Your task to perform on an android device: toggle show notifications on the lock screen Image 0: 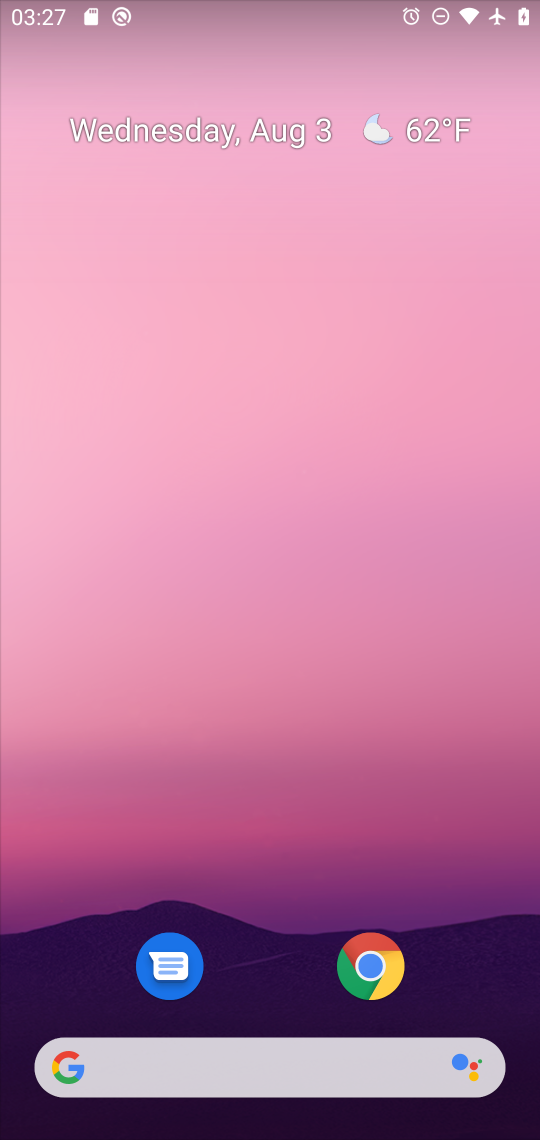
Step 0: drag from (269, 978) to (325, 340)
Your task to perform on an android device: toggle show notifications on the lock screen Image 1: 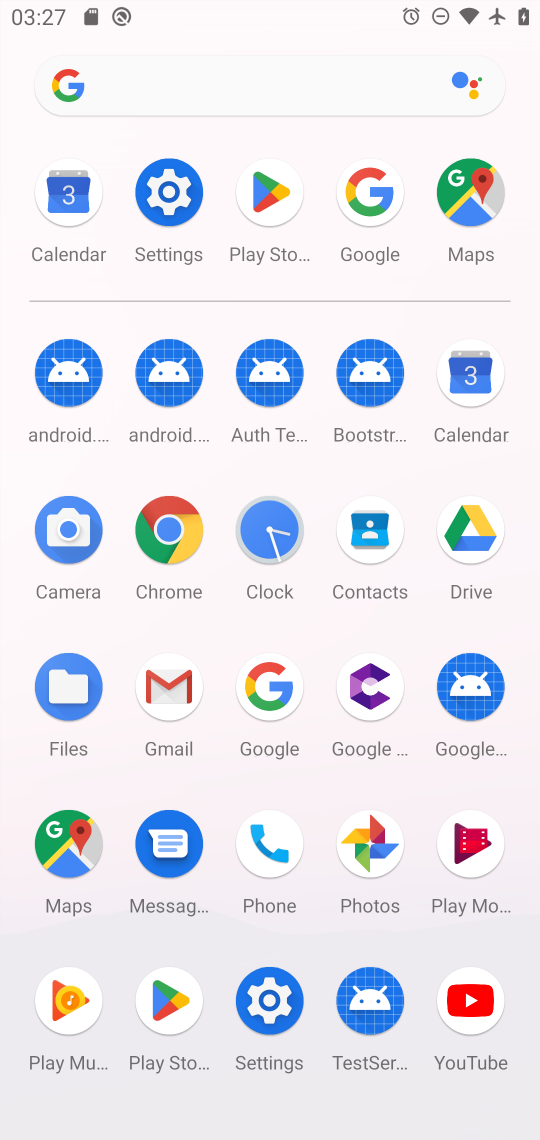
Step 1: click (185, 199)
Your task to perform on an android device: toggle show notifications on the lock screen Image 2: 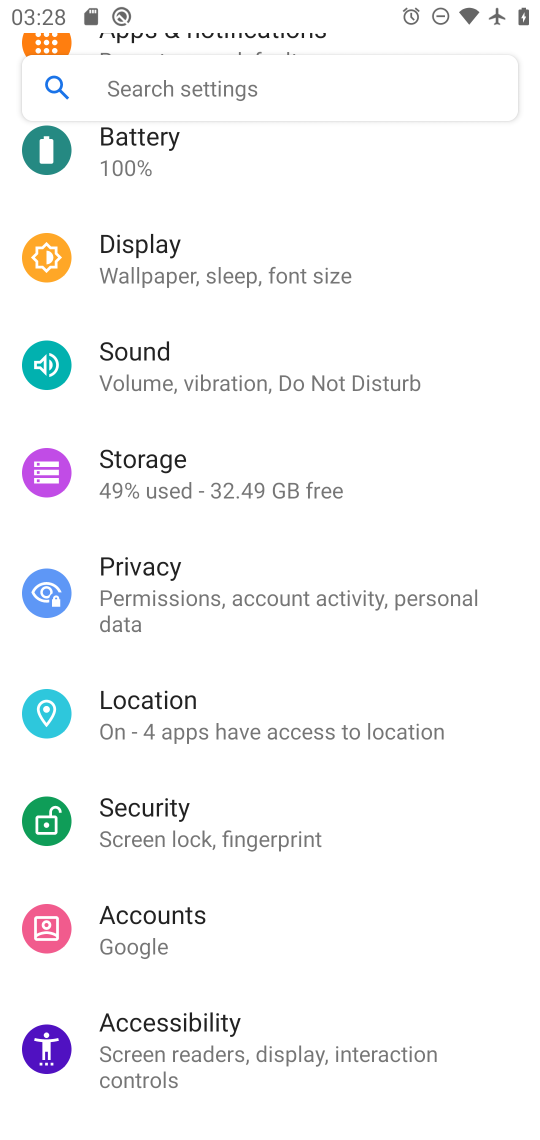
Step 2: drag from (249, 879) to (279, 391)
Your task to perform on an android device: toggle show notifications on the lock screen Image 3: 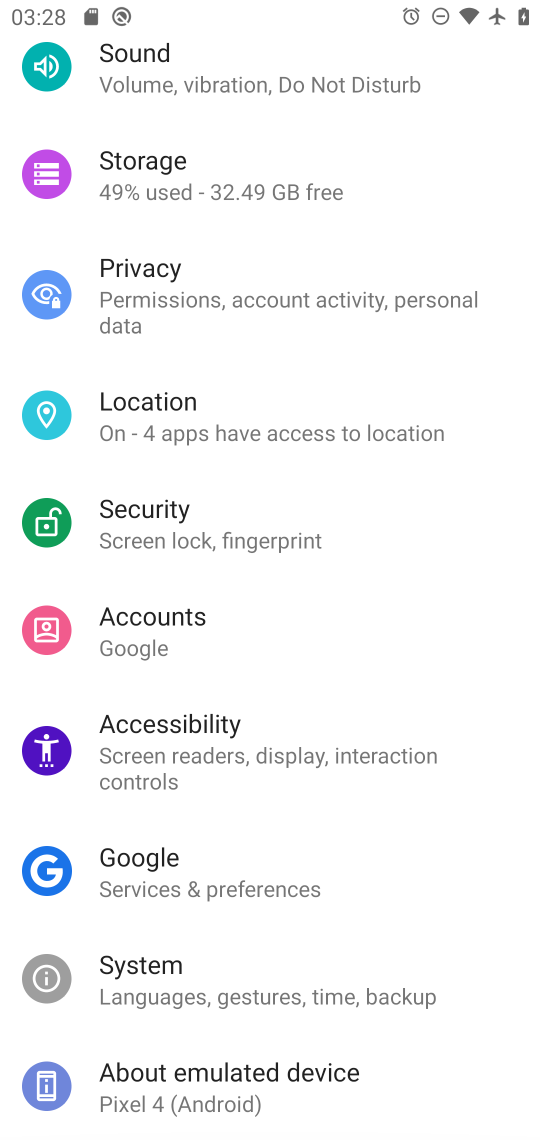
Step 3: drag from (289, 386) to (289, 779)
Your task to perform on an android device: toggle show notifications on the lock screen Image 4: 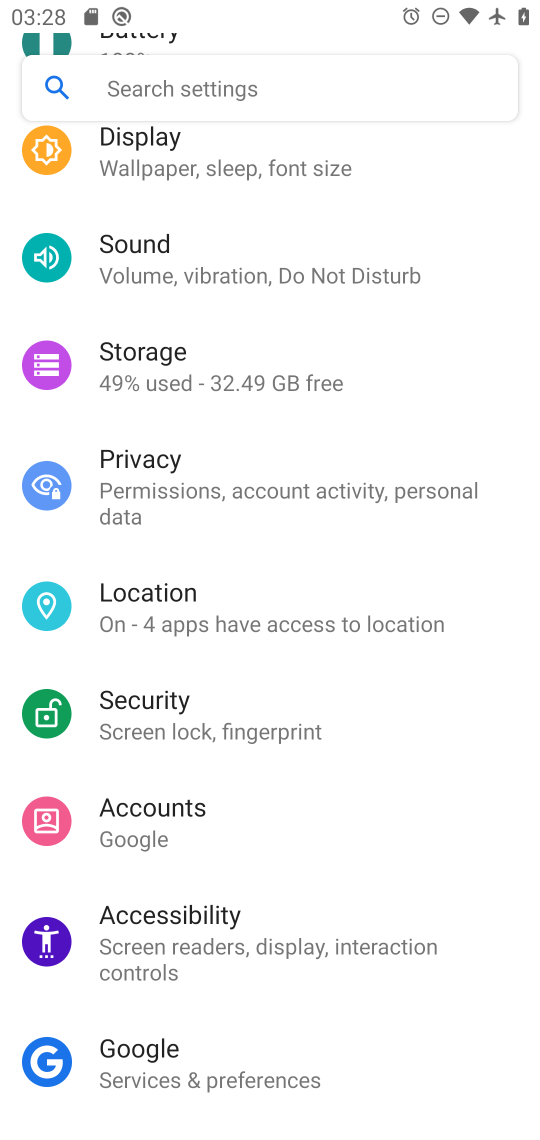
Step 4: drag from (248, 274) to (300, 616)
Your task to perform on an android device: toggle show notifications on the lock screen Image 5: 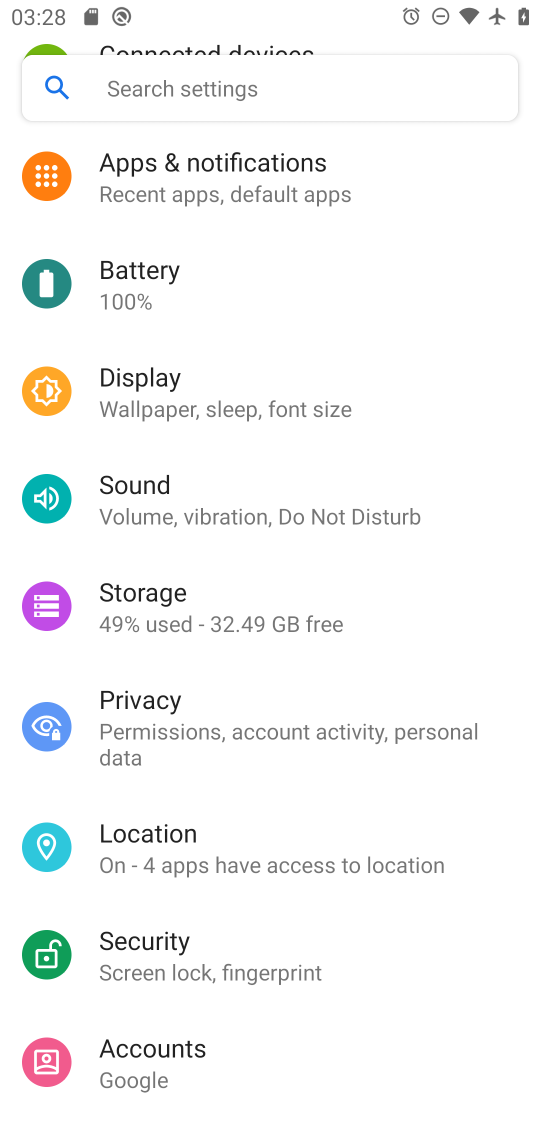
Step 5: click (214, 188)
Your task to perform on an android device: toggle show notifications on the lock screen Image 6: 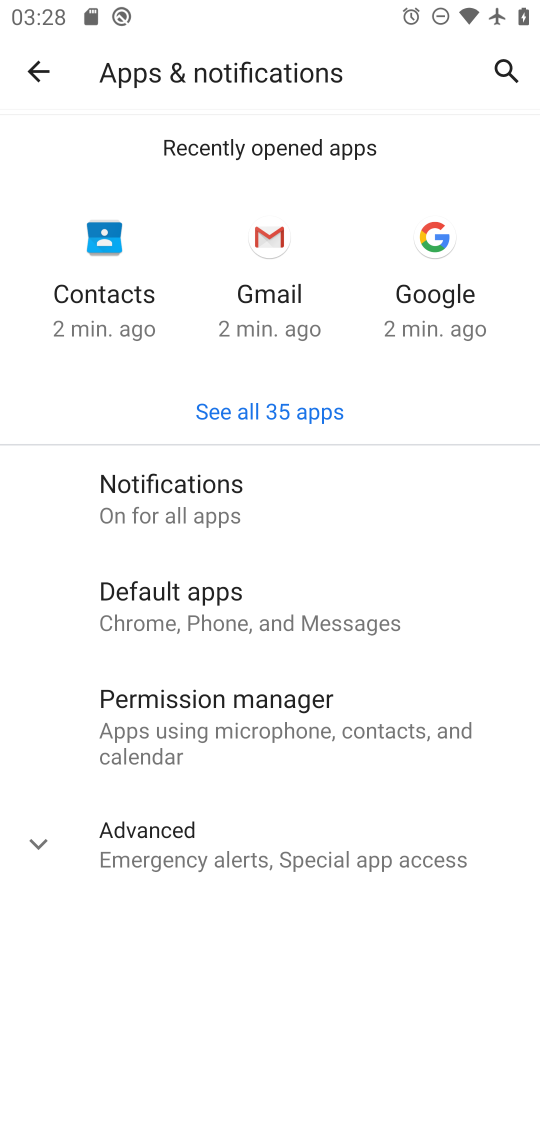
Step 6: click (227, 517)
Your task to perform on an android device: toggle show notifications on the lock screen Image 7: 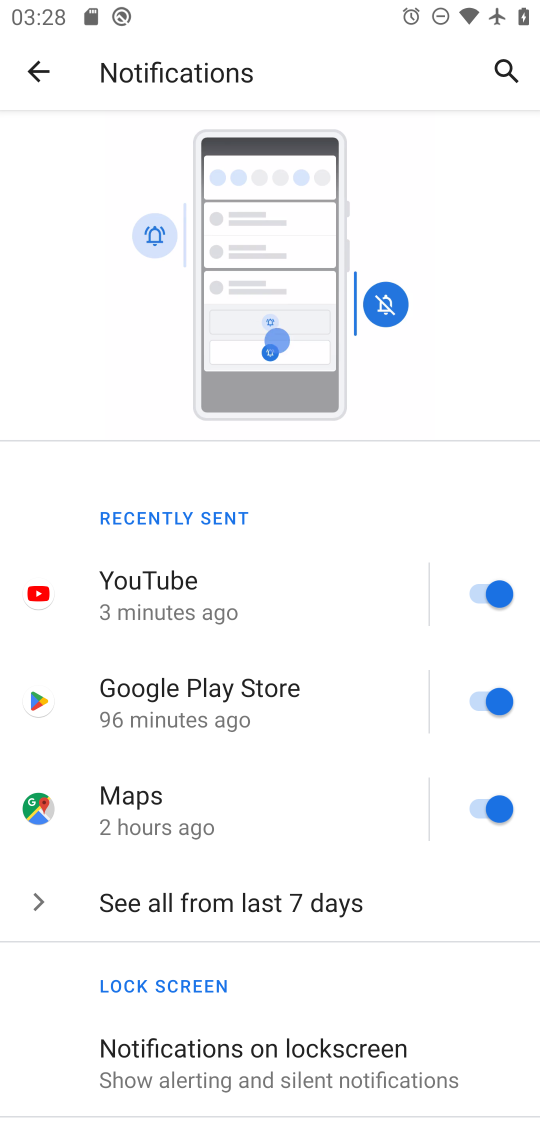
Step 7: click (321, 1033)
Your task to perform on an android device: toggle show notifications on the lock screen Image 8: 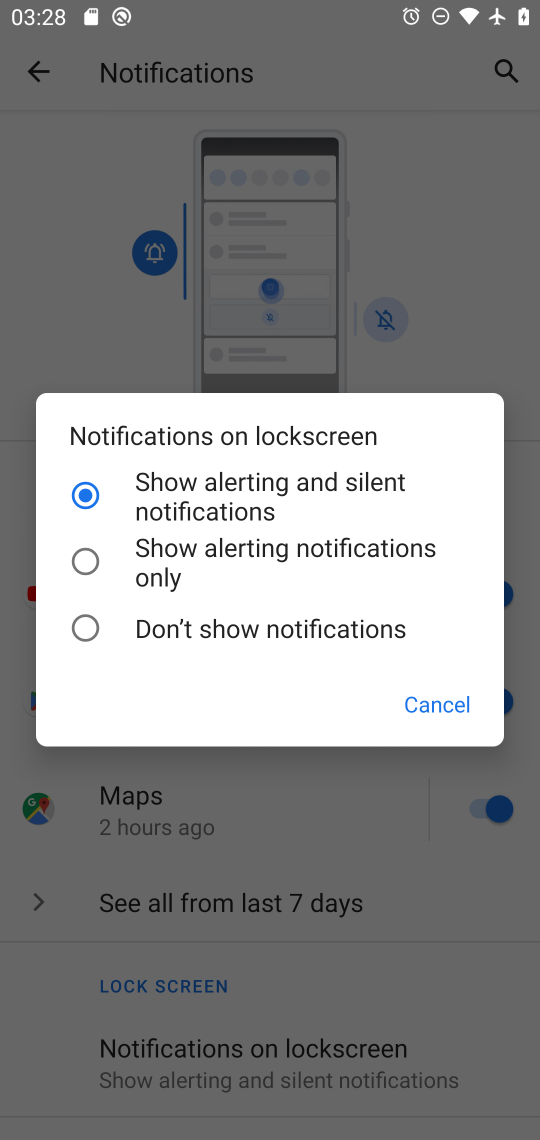
Step 8: click (213, 637)
Your task to perform on an android device: toggle show notifications on the lock screen Image 9: 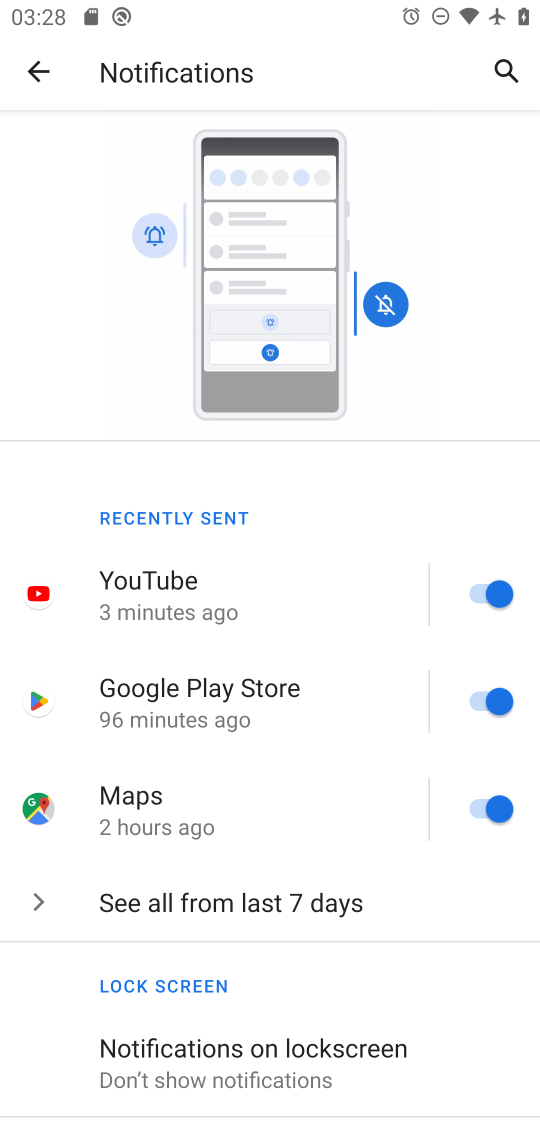
Step 9: click (274, 1065)
Your task to perform on an android device: toggle show notifications on the lock screen Image 10: 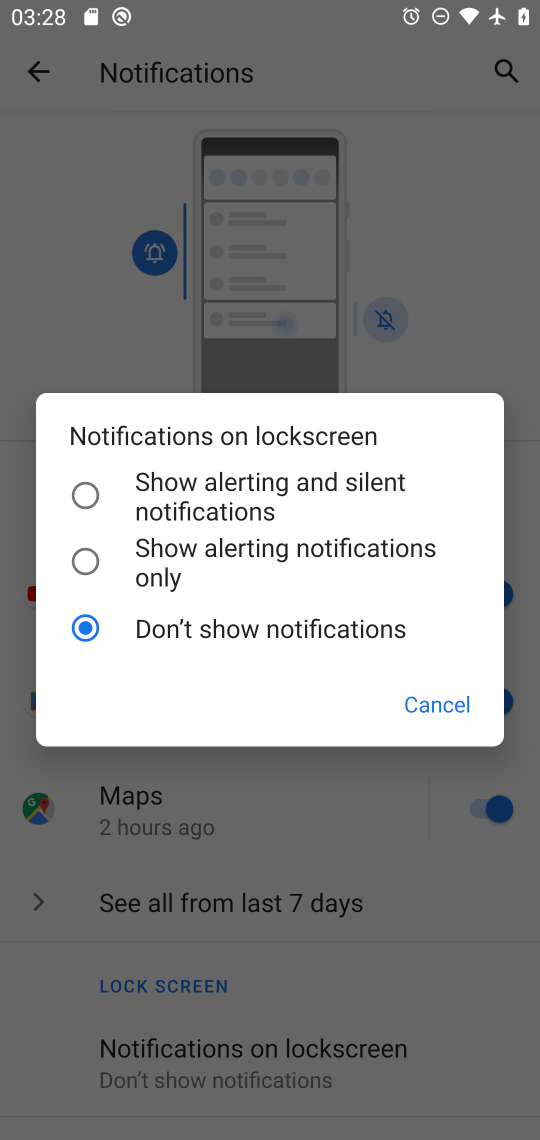
Step 10: task complete